Your task to perform on an android device: toggle translation in the chrome app Image 0: 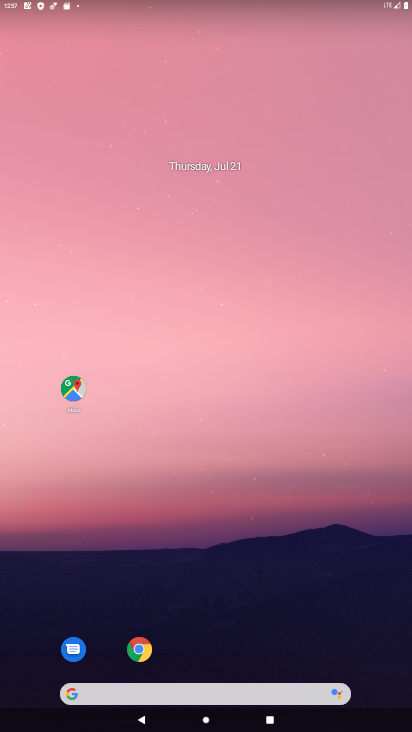
Step 0: click (139, 655)
Your task to perform on an android device: toggle translation in the chrome app Image 1: 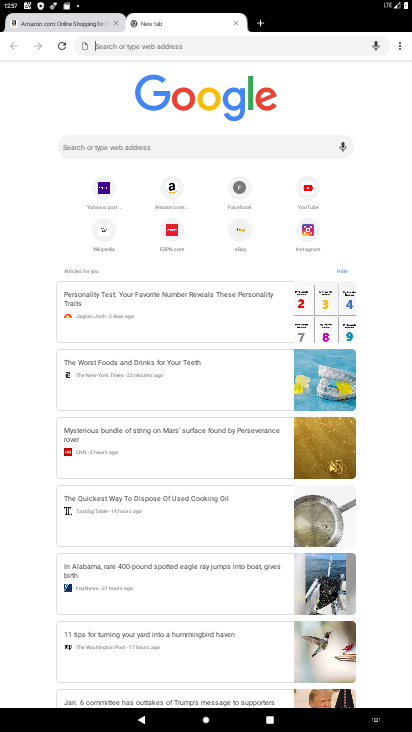
Step 1: click (398, 46)
Your task to perform on an android device: toggle translation in the chrome app Image 2: 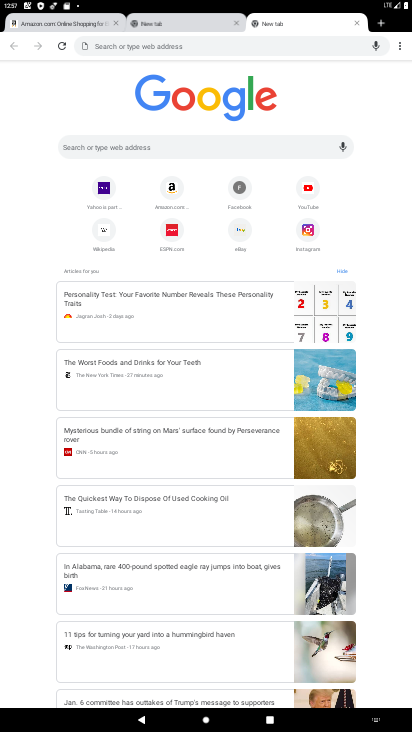
Step 2: click (402, 46)
Your task to perform on an android device: toggle translation in the chrome app Image 3: 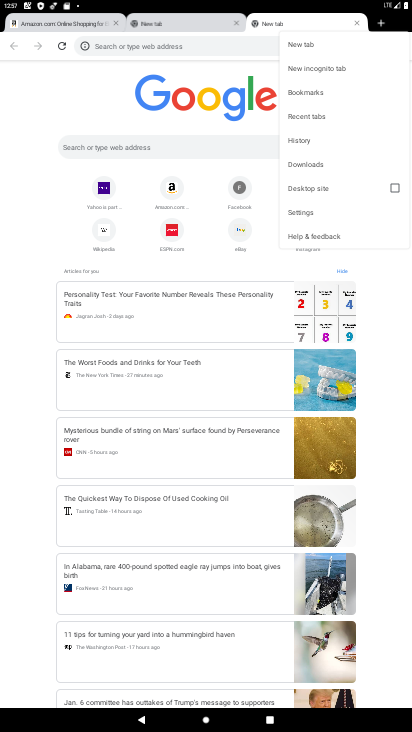
Step 3: click (303, 209)
Your task to perform on an android device: toggle translation in the chrome app Image 4: 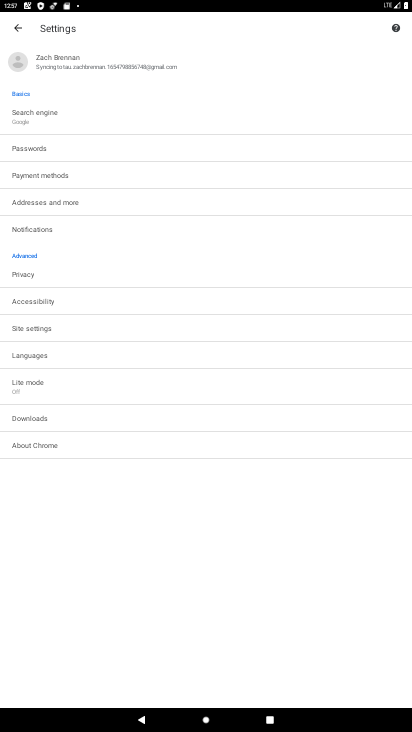
Step 4: click (26, 354)
Your task to perform on an android device: toggle translation in the chrome app Image 5: 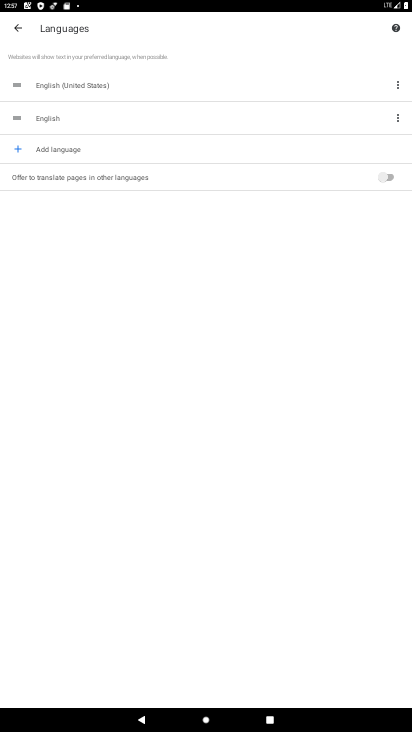
Step 5: click (384, 175)
Your task to perform on an android device: toggle translation in the chrome app Image 6: 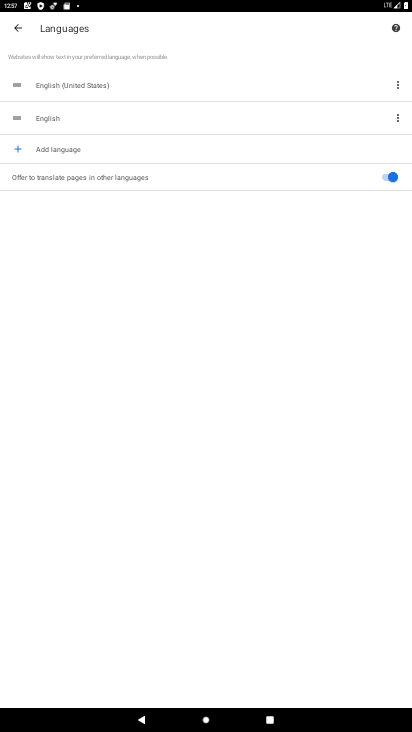
Step 6: task complete